Your task to perform on an android device: change your default location settings in chrome Image 0: 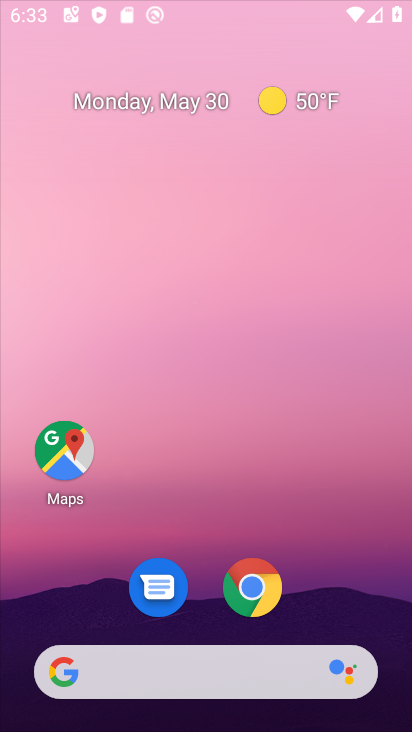
Step 0: click (226, 32)
Your task to perform on an android device: change your default location settings in chrome Image 1: 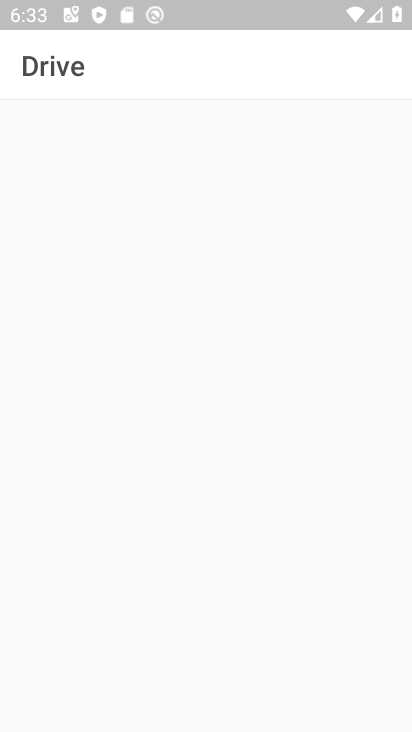
Step 1: drag from (296, 570) to (222, 74)
Your task to perform on an android device: change your default location settings in chrome Image 2: 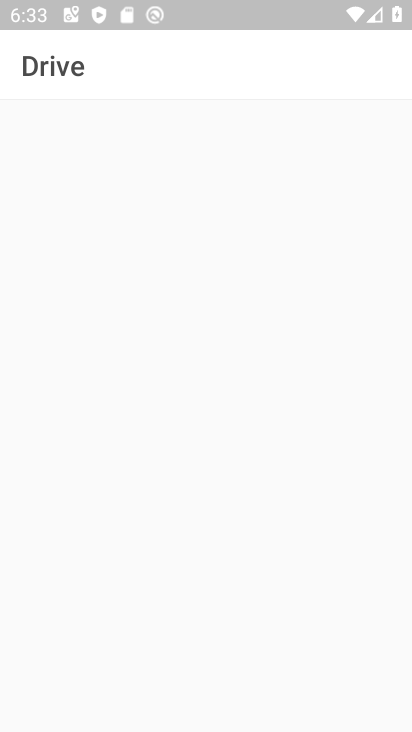
Step 2: press back button
Your task to perform on an android device: change your default location settings in chrome Image 3: 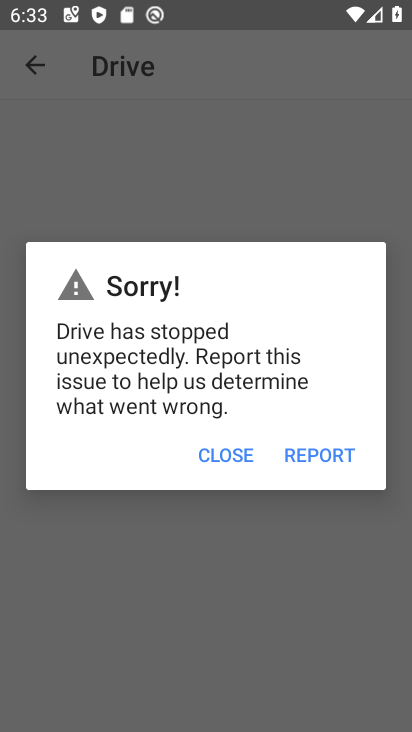
Step 3: press back button
Your task to perform on an android device: change your default location settings in chrome Image 4: 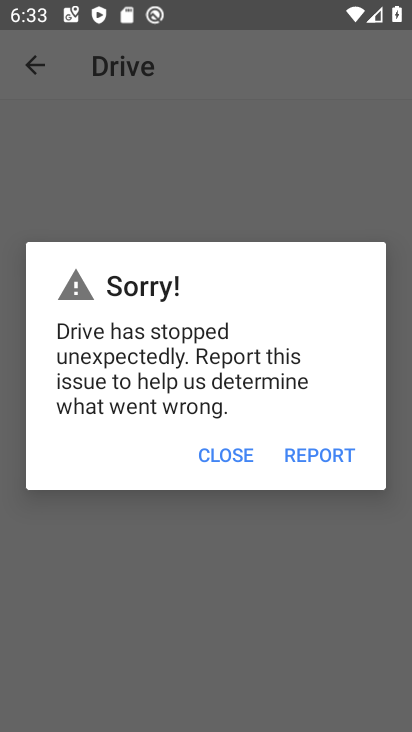
Step 4: press home button
Your task to perform on an android device: change your default location settings in chrome Image 5: 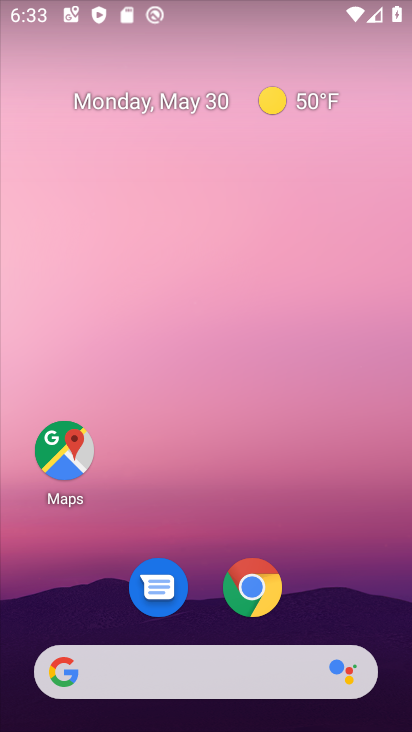
Step 5: drag from (307, 528) to (237, 62)
Your task to perform on an android device: change your default location settings in chrome Image 6: 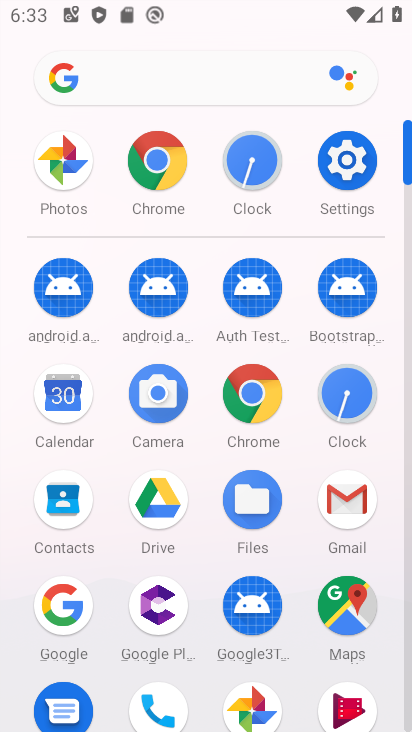
Step 6: click (153, 157)
Your task to perform on an android device: change your default location settings in chrome Image 7: 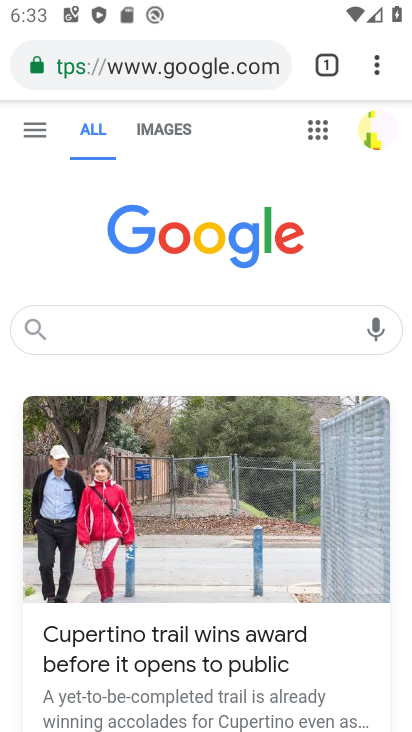
Step 7: drag from (374, 69) to (160, 625)
Your task to perform on an android device: change your default location settings in chrome Image 8: 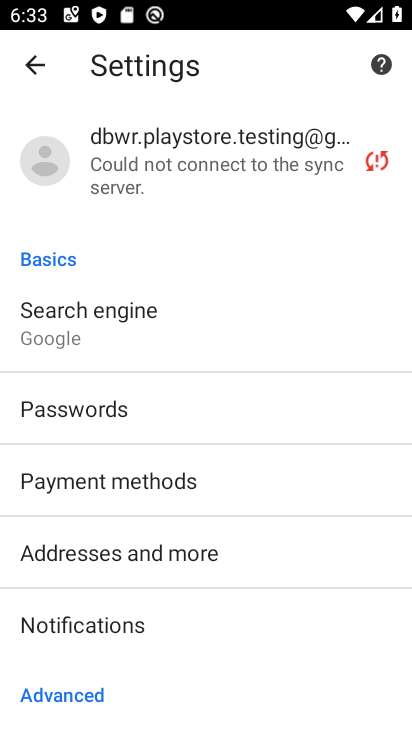
Step 8: drag from (304, 554) to (250, 161)
Your task to perform on an android device: change your default location settings in chrome Image 9: 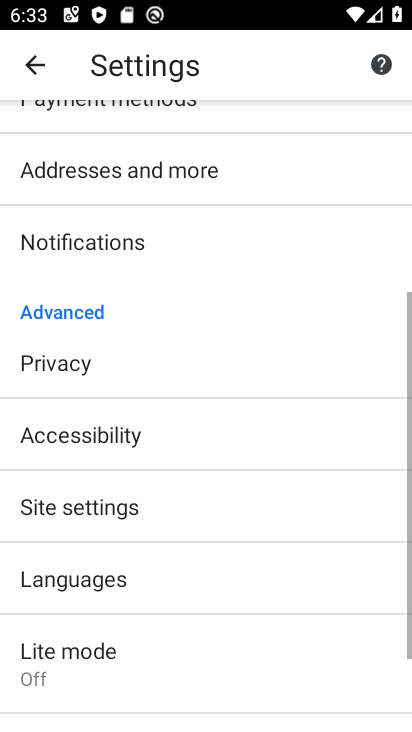
Step 9: drag from (236, 555) to (236, 171)
Your task to perform on an android device: change your default location settings in chrome Image 10: 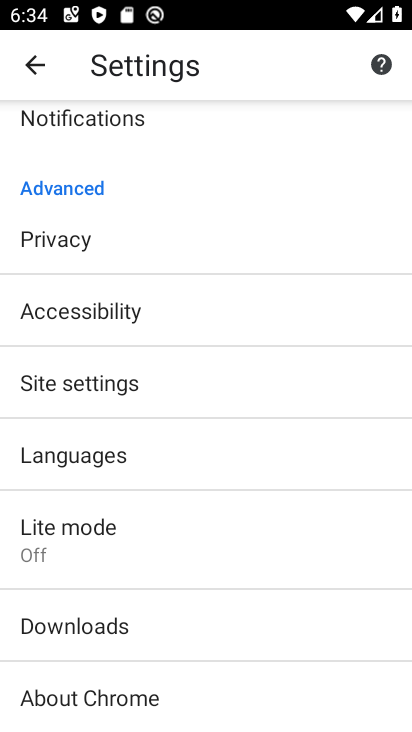
Step 10: click (130, 380)
Your task to perform on an android device: change your default location settings in chrome Image 11: 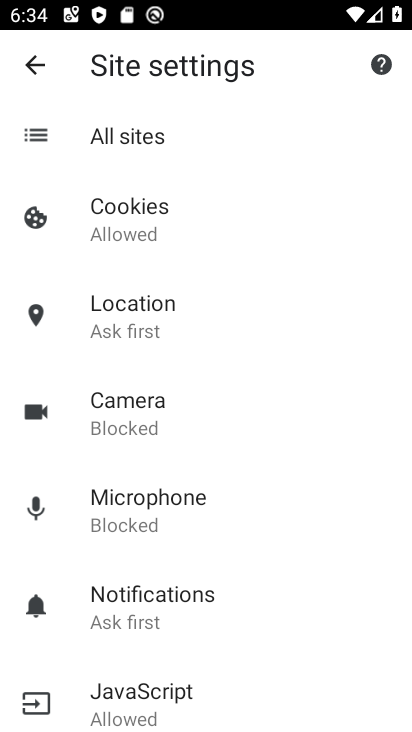
Step 11: click (170, 317)
Your task to perform on an android device: change your default location settings in chrome Image 12: 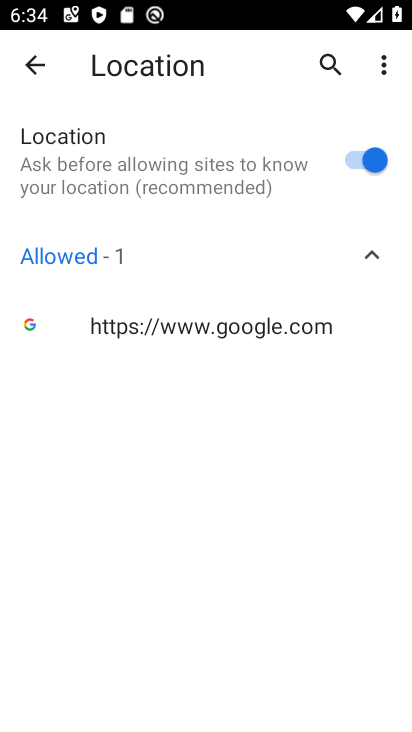
Step 12: click (351, 154)
Your task to perform on an android device: change your default location settings in chrome Image 13: 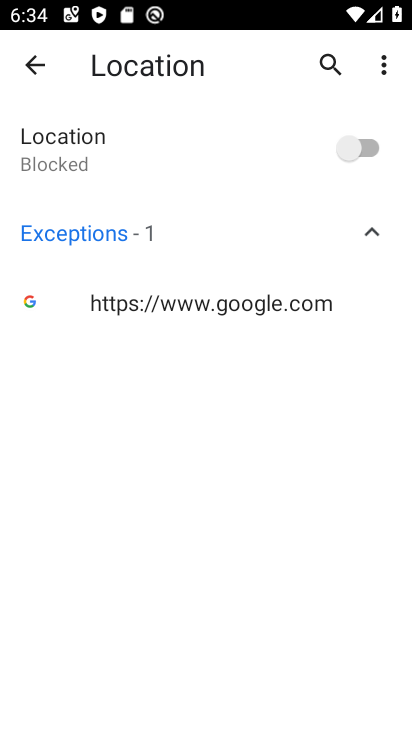
Step 13: task complete